Your task to perform on an android device: Add "asus zenbook" to the cart on amazon, then select checkout. Image 0: 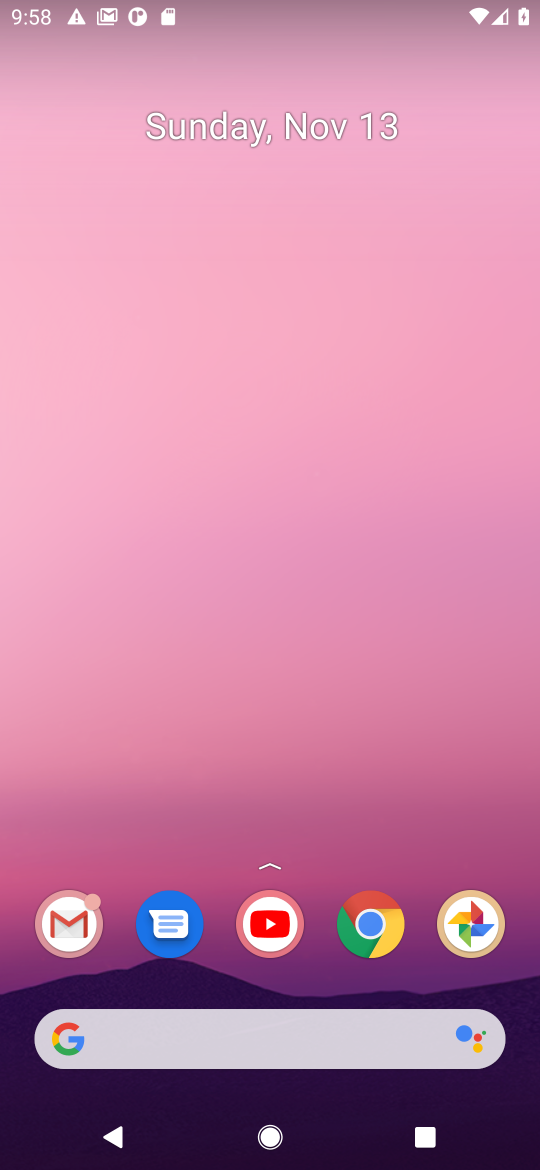
Step 0: click (369, 931)
Your task to perform on an android device: Add "asus zenbook" to the cart on amazon, then select checkout. Image 1: 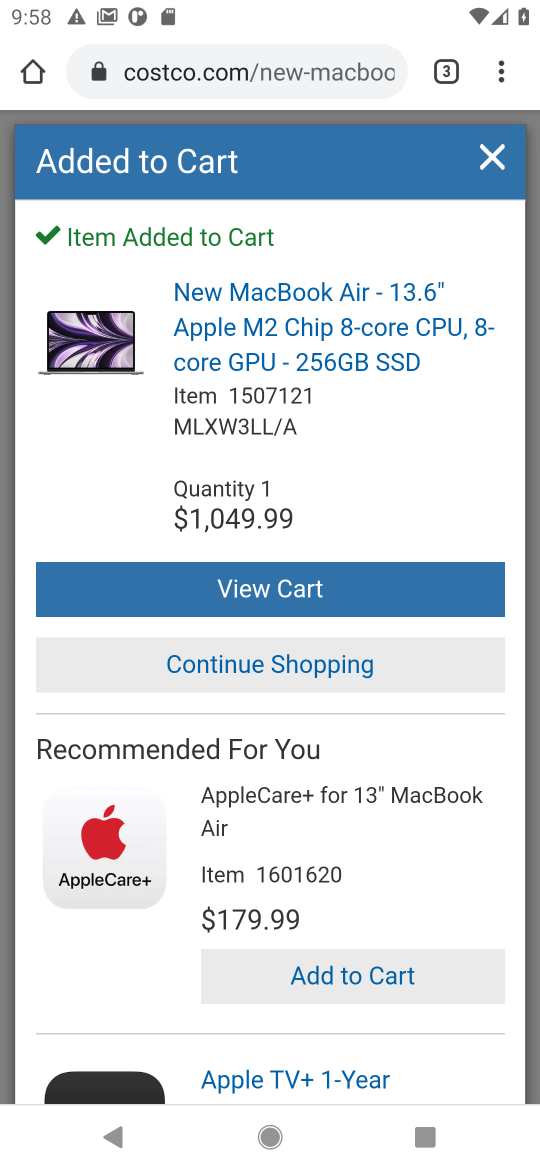
Step 1: click (246, 72)
Your task to perform on an android device: Add "asus zenbook" to the cart on amazon, then select checkout. Image 2: 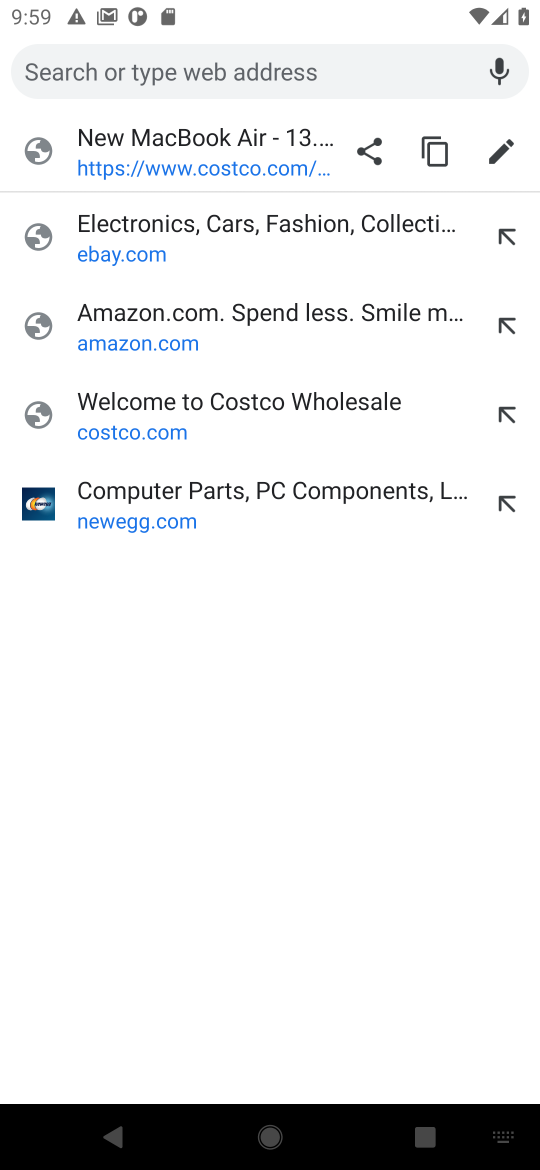
Step 2: click (139, 333)
Your task to perform on an android device: Add "asus zenbook" to the cart on amazon, then select checkout. Image 3: 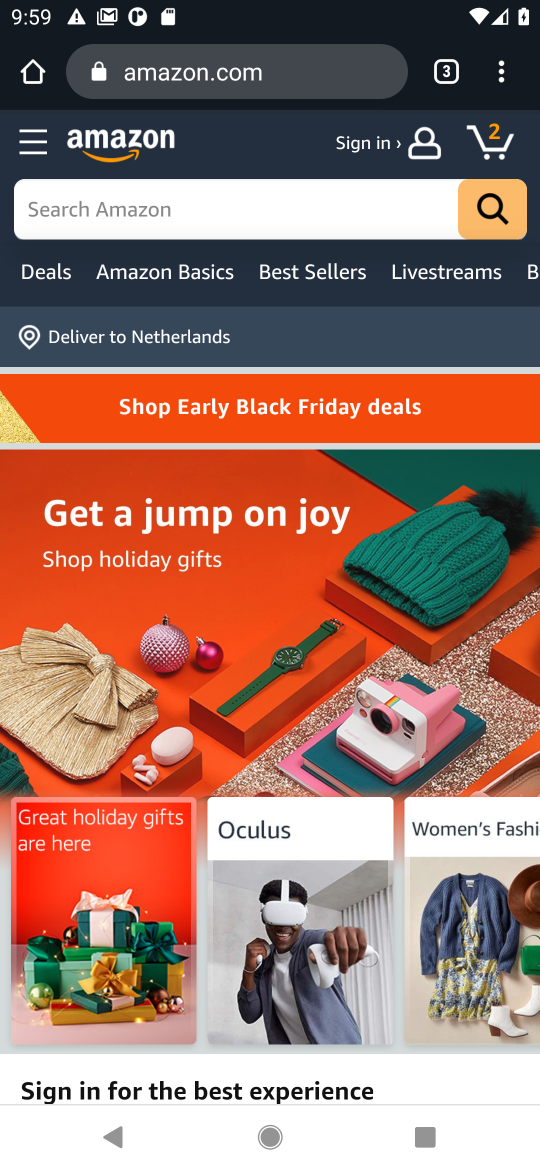
Step 3: click (73, 201)
Your task to perform on an android device: Add "asus zenbook" to the cart on amazon, then select checkout. Image 4: 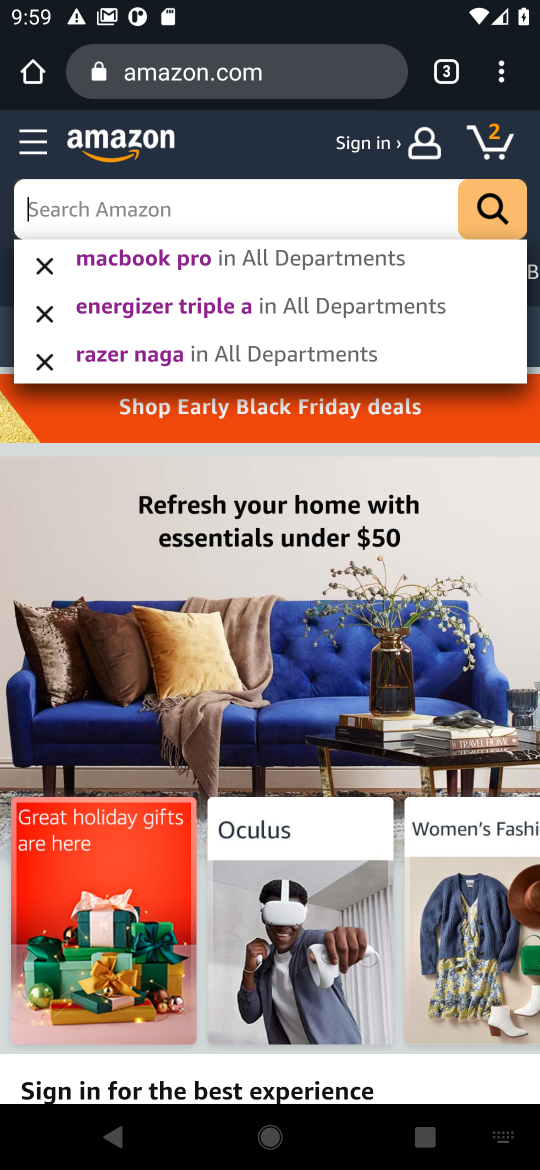
Step 4: type "asus zenbook"
Your task to perform on an android device: Add "asus zenbook" to the cart on amazon, then select checkout. Image 5: 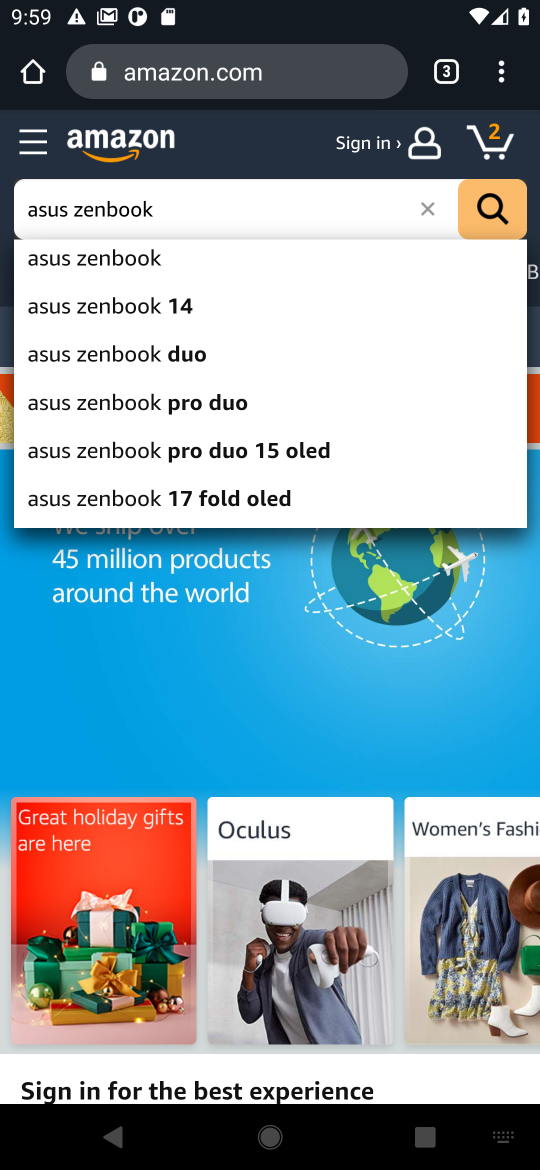
Step 5: click (71, 254)
Your task to perform on an android device: Add "asus zenbook" to the cart on amazon, then select checkout. Image 6: 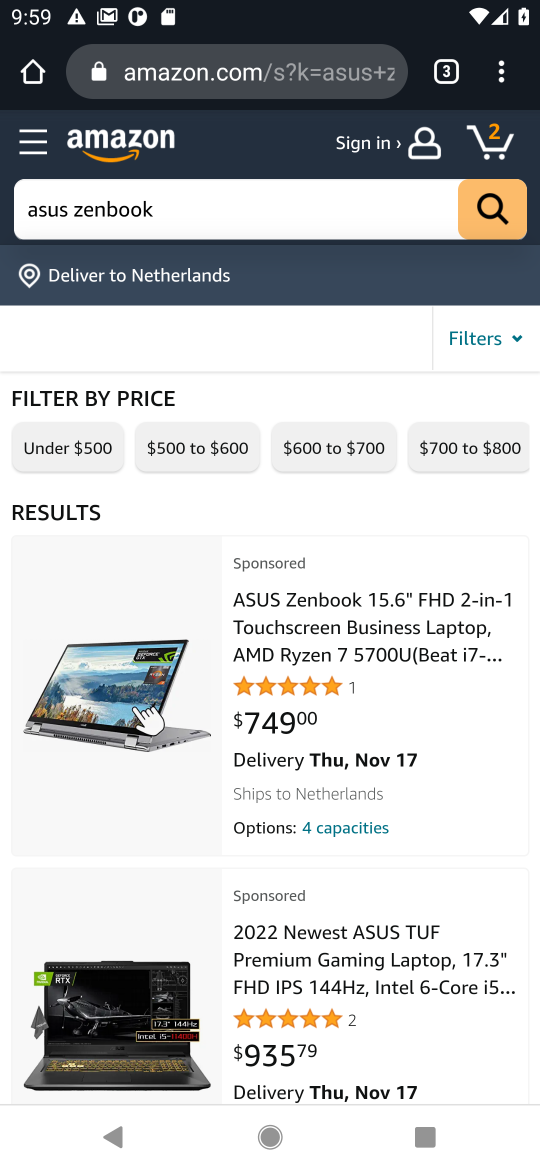
Step 6: click (79, 663)
Your task to perform on an android device: Add "asus zenbook" to the cart on amazon, then select checkout. Image 7: 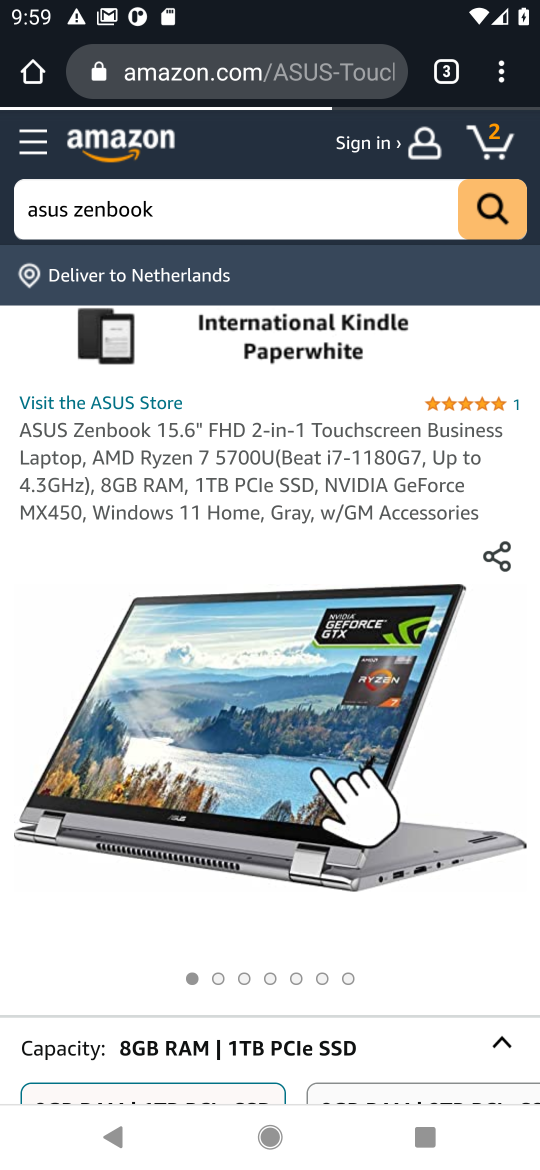
Step 7: drag from (220, 838) to (207, 468)
Your task to perform on an android device: Add "asus zenbook" to the cart on amazon, then select checkout. Image 8: 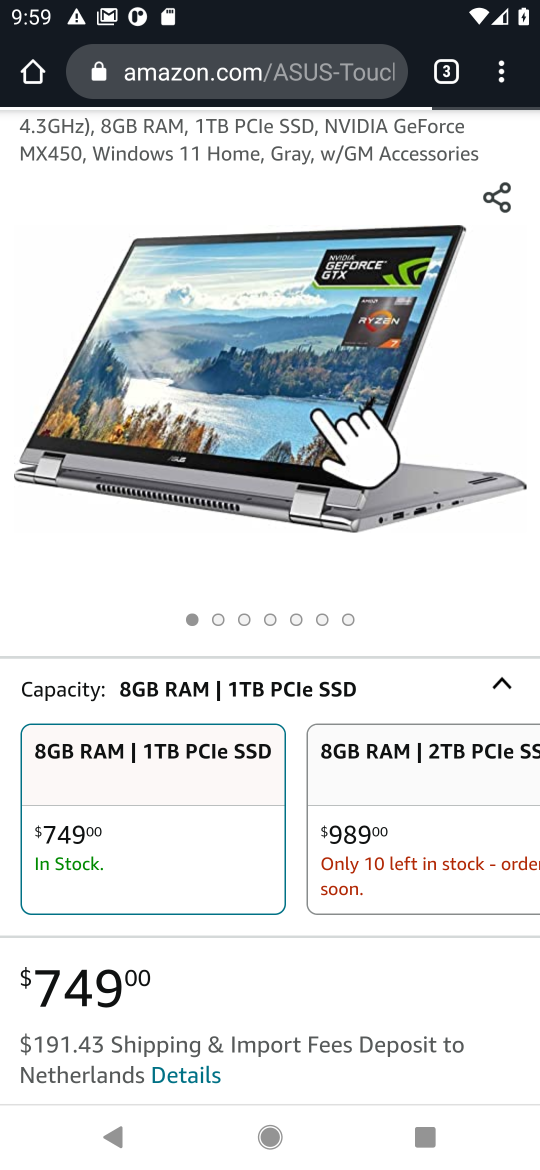
Step 8: drag from (225, 900) to (224, 480)
Your task to perform on an android device: Add "asus zenbook" to the cart on amazon, then select checkout. Image 9: 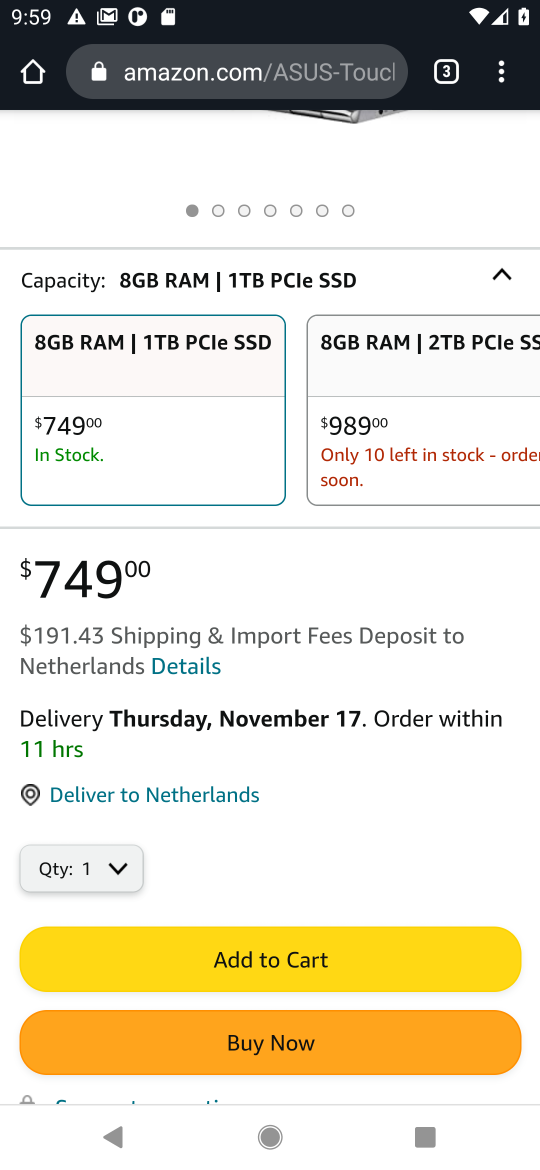
Step 9: click (264, 961)
Your task to perform on an android device: Add "asus zenbook" to the cart on amazon, then select checkout. Image 10: 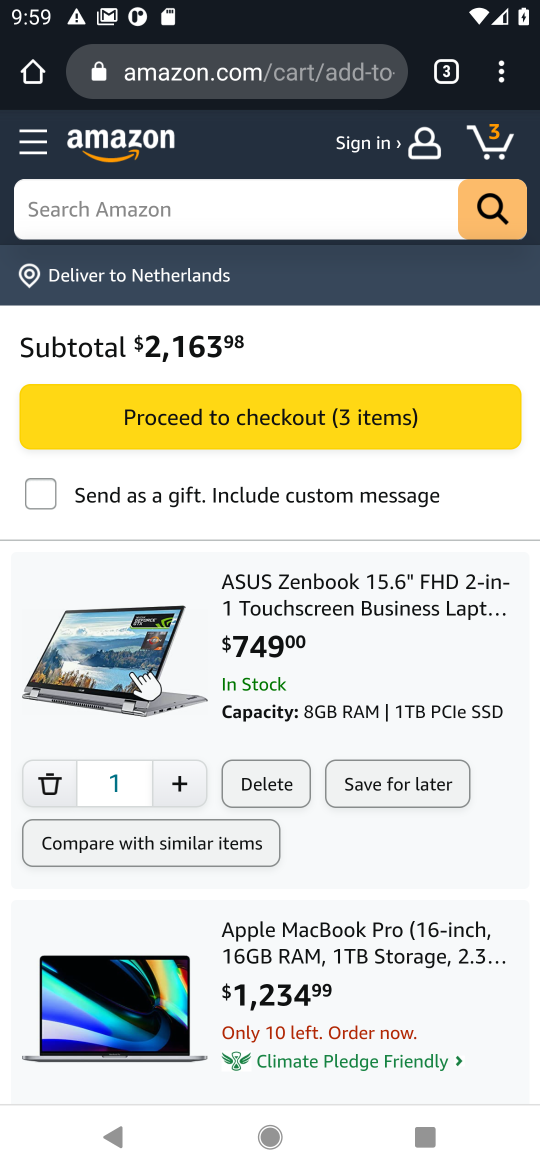
Step 10: click (215, 422)
Your task to perform on an android device: Add "asus zenbook" to the cart on amazon, then select checkout. Image 11: 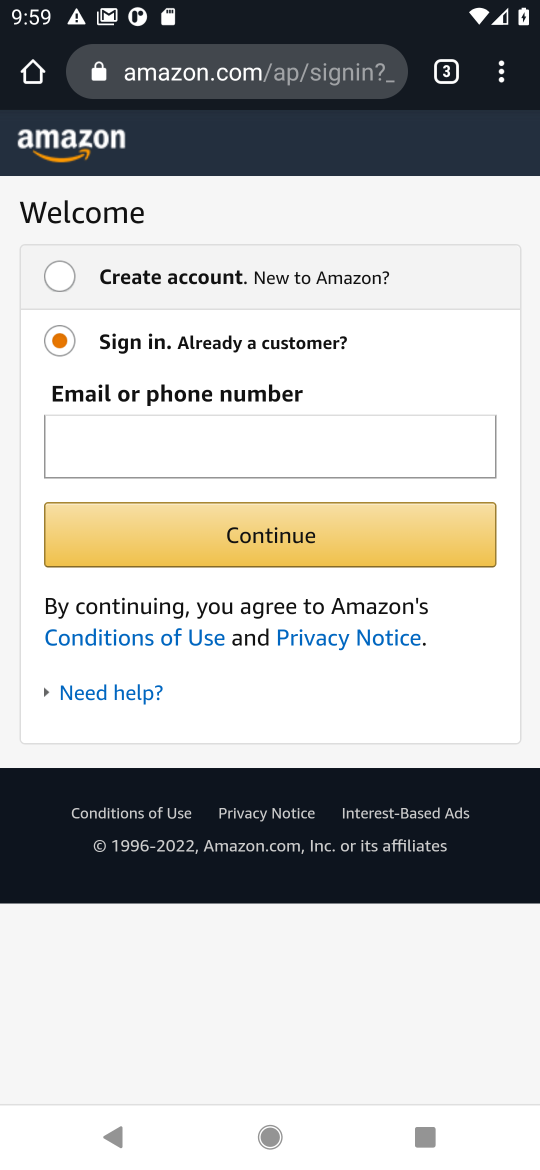
Step 11: task complete